Your task to perform on an android device: Go to Google Image 0: 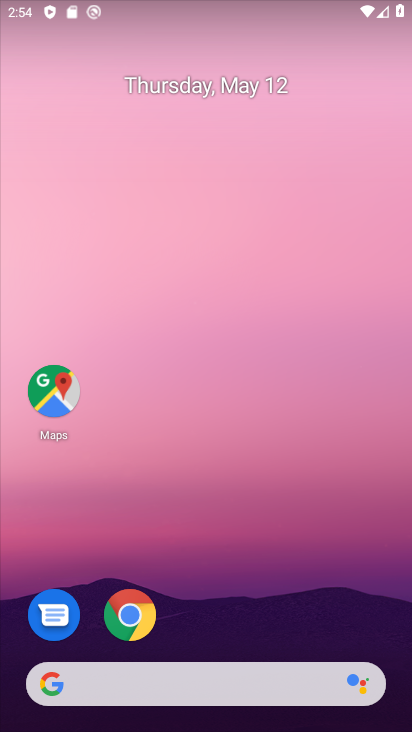
Step 0: drag from (208, 592) to (230, 37)
Your task to perform on an android device: Go to Google Image 1: 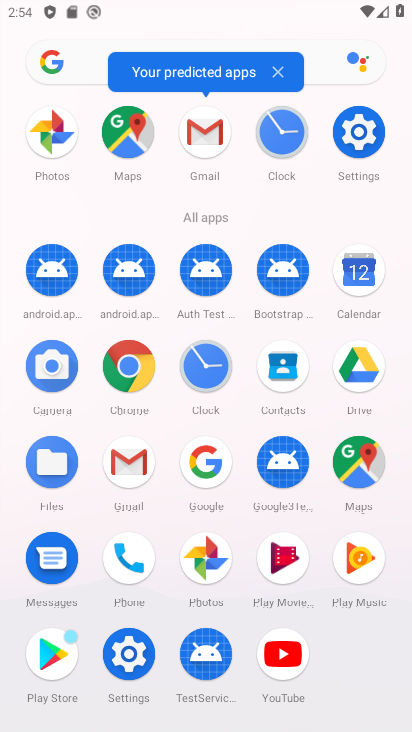
Step 1: click (214, 465)
Your task to perform on an android device: Go to Google Image 2: 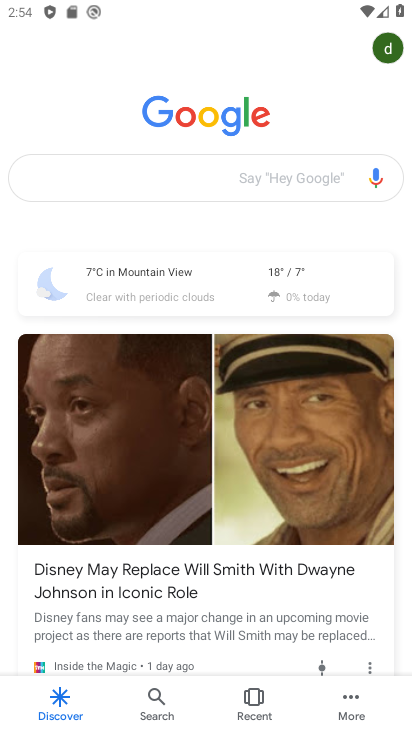
Step 2: task complete